Your task to perform on an android device: Open Amazon Image 0: 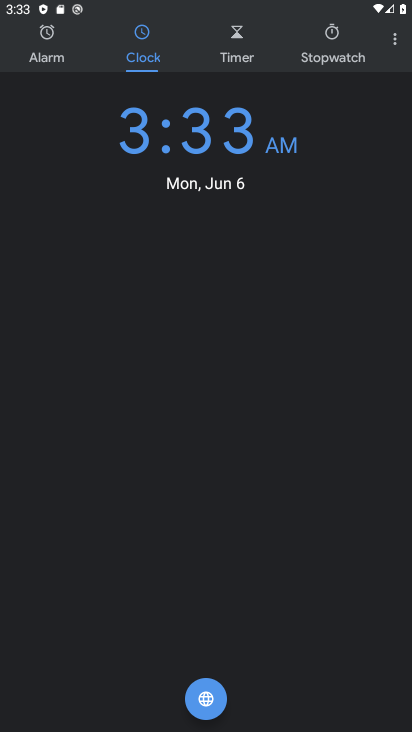
Step 0: press home button
Your task to perform on an android device: Open Amazon Image 1: 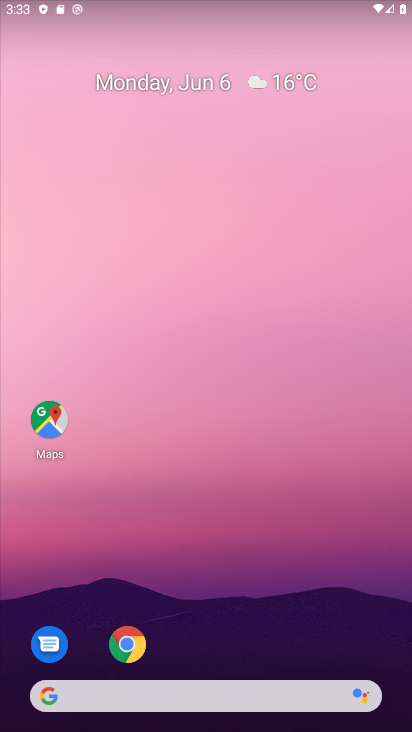
Step 1: click (129, 651)
Your task to perform on an android device: Open Amazon Image 2: 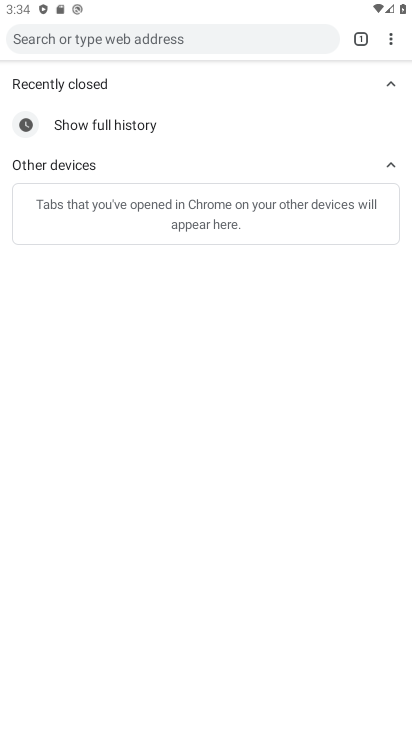
Step 2: click (362, 38)
Your task to perform on an android device: Open Amazon Image 3: 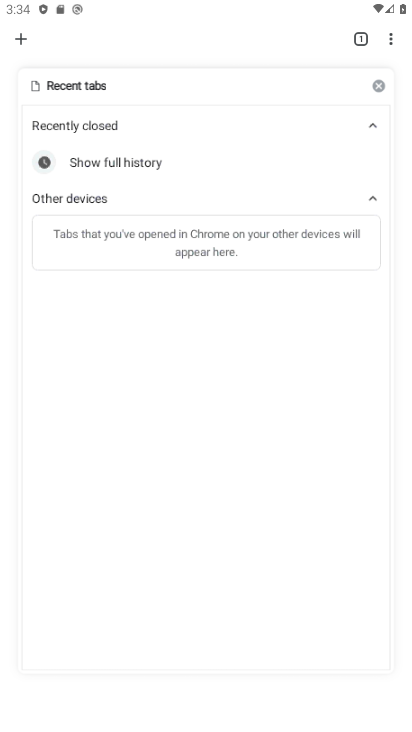
Step 3: click (377, 82)
Your task to perform on an android device: Open Amazon Image 4: 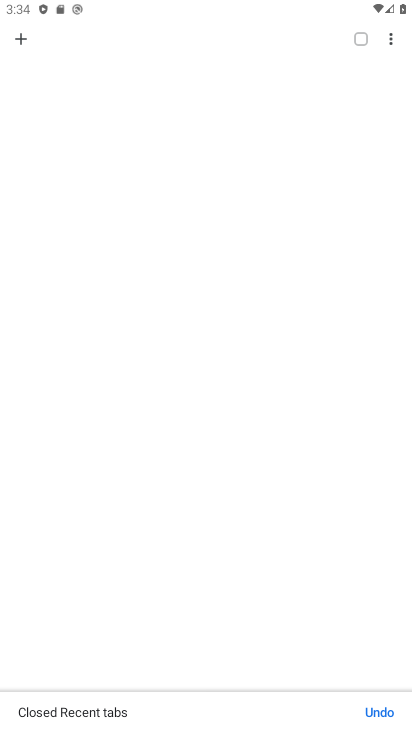
Step 4: click (12, 37)
Your task to perform on an android device: Open Amazon Image 5: 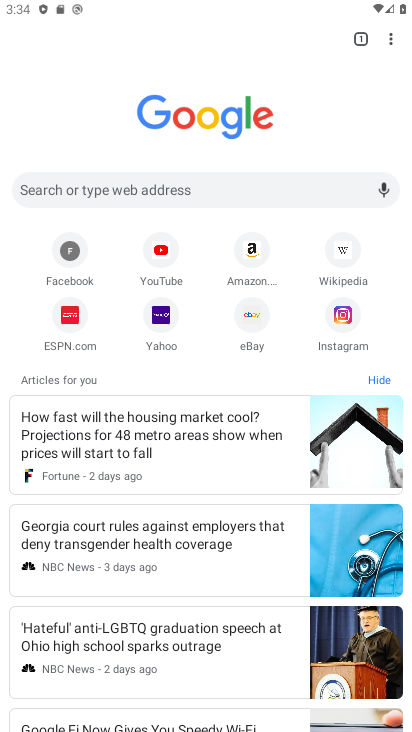
Step 5: click (253, 252)
Your task to perform on an android device: Open Amazon Image 6: 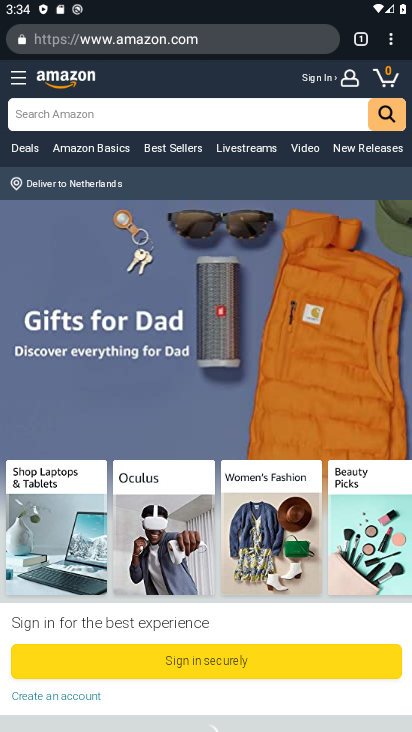
Step 6: task complete